Your task to perform on an android device: Go to internet settings Image 0: 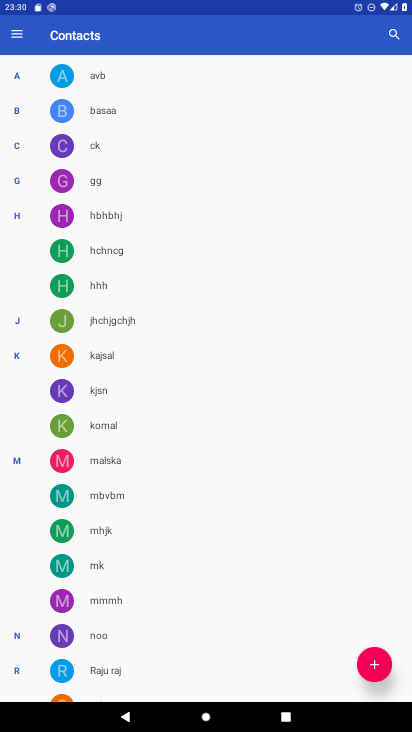
Step 0: drag from (183, 647) to (273, 152)
Your task to perform on an android device: Go to internet settings Image 1: 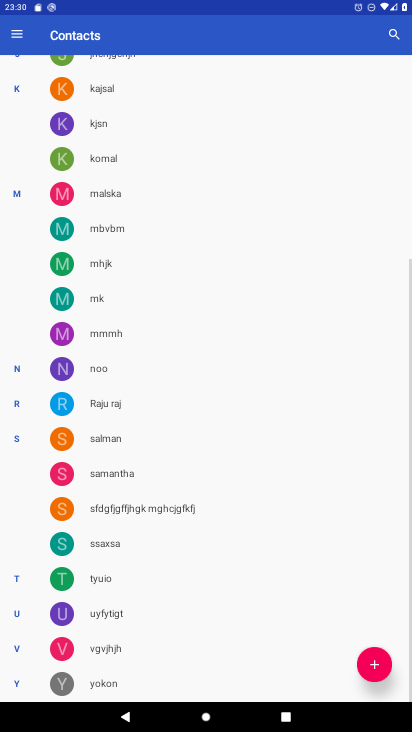
Step 1: drag from (185, 663) to (200, 471)
Your task to perform on an android device: Go to internet settings Image 2: 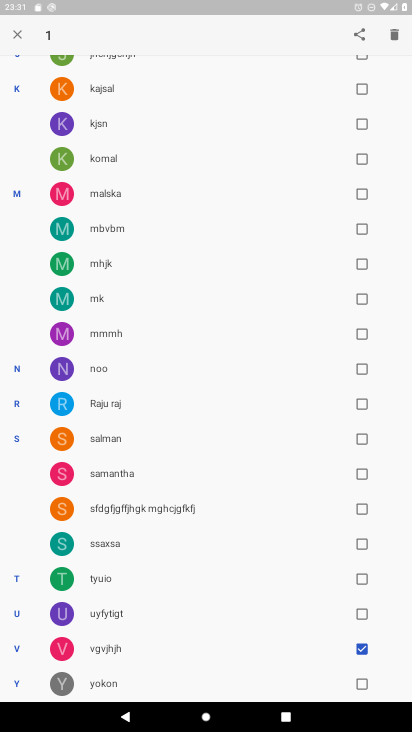
Step 2: press home button
Your task to perform on an android device: Go to internet settings Image 3: 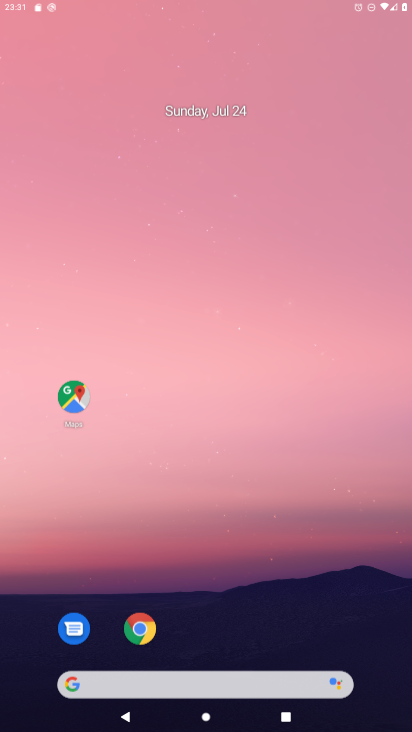
Step 3: press home button
Your task to perform on an android device: Go to internet settings Image 4: 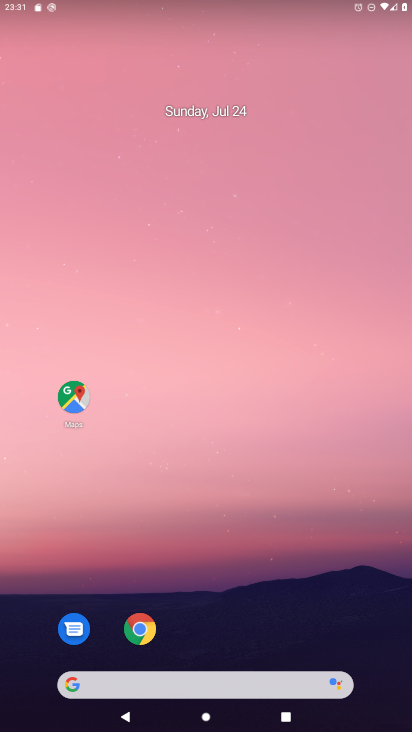
Step 4: drag from (237, 590) to (245, 155)
Your task to perform on an android device: Go to internet settings Image 5: 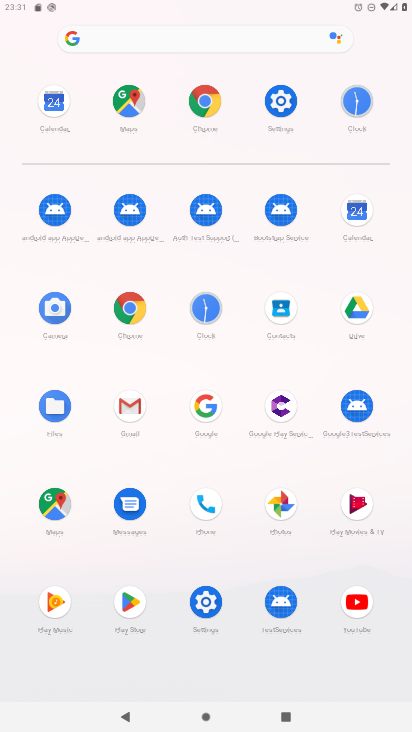
Step 5: click (280, 100)
Your task to perform on an android device: Go to internet settings Image 6: 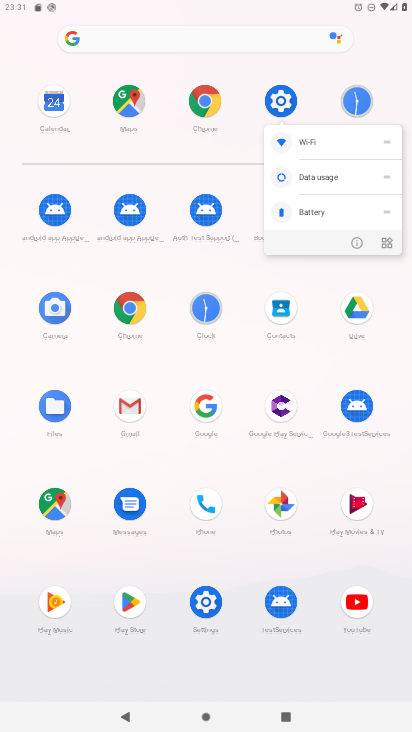
Step 6: click (359, 243)
Your task to perform on an android device: Go to internet settings Image 7: 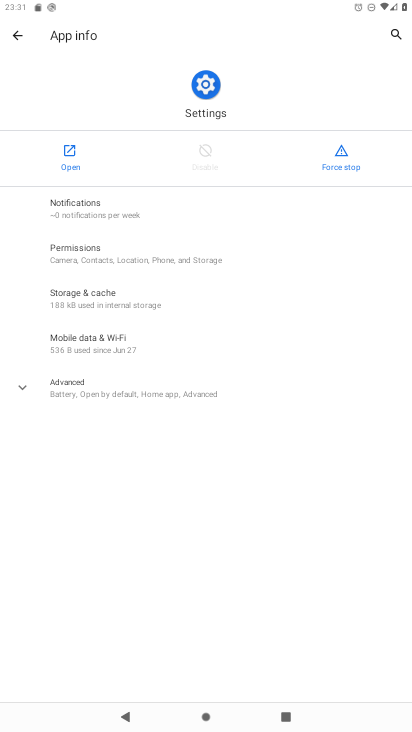
Step 7: click (64, 171)
Your task to perform on an android device: Go to internet settings Image 8: 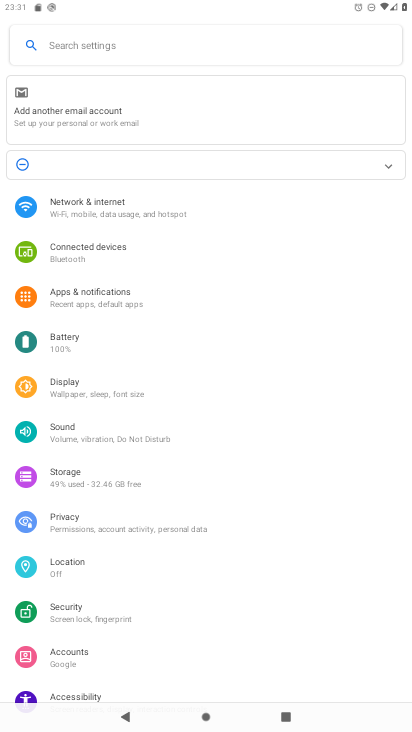
Step 8: drag from (197, 597) to (210, 314)
Your task to perform on an android device: Go to internet settings Image 9: 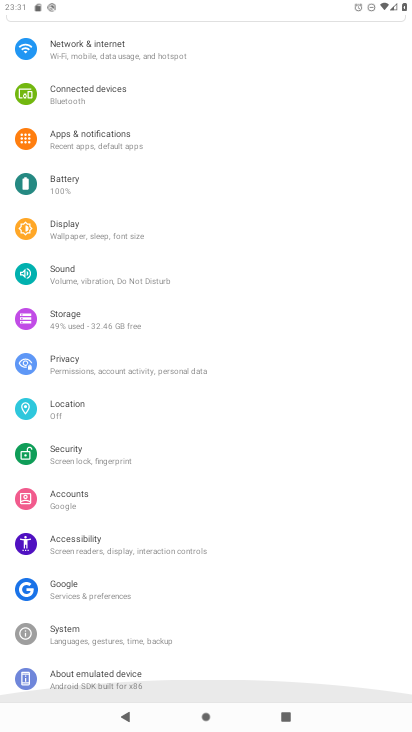
Step 9: drag from (200, 244) to (166, 717)
Your task to perform on an android device: Go to internet settings Image 10: 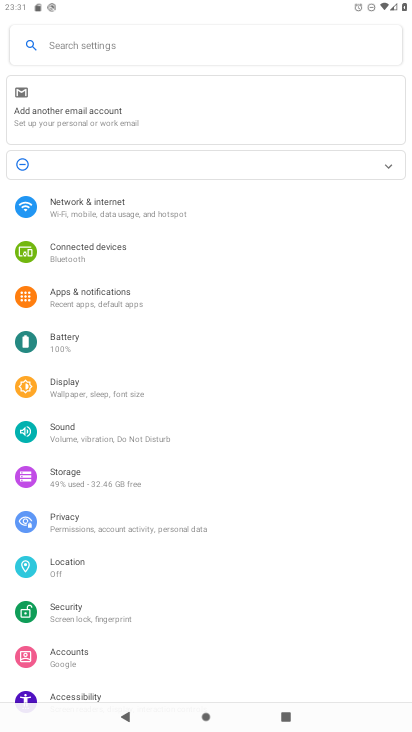
Step 10: click (103, 207)
Your task to perform on an android device: Go to internet settings Image 11: 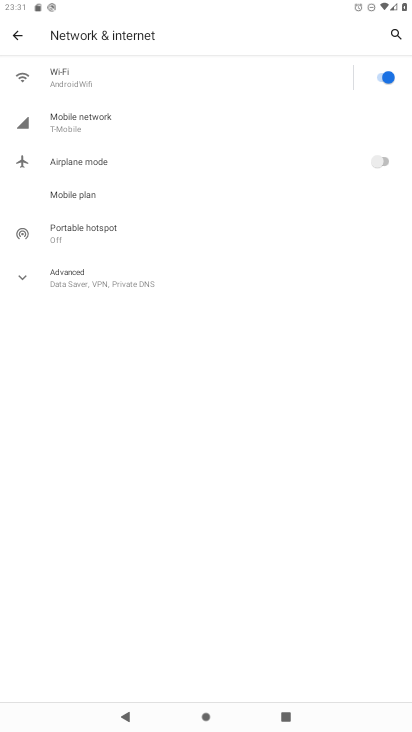
Step 11: task complete